Your task to perform on an android device: find which apps use the phone's location Image 0: 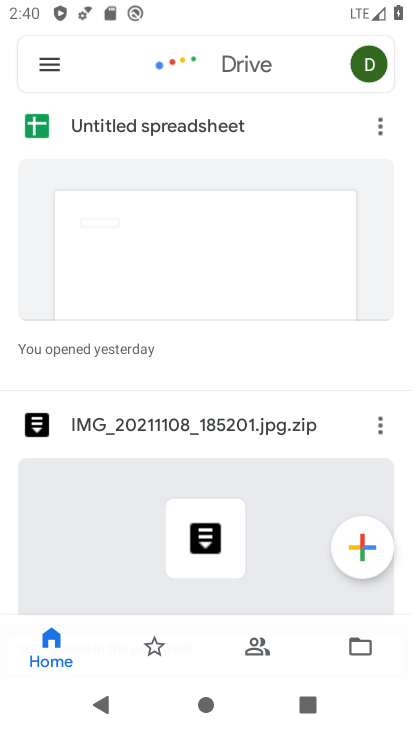
Step 0: press home button
Your task to perform on an android device: find which apps use the phone's location Image 1: 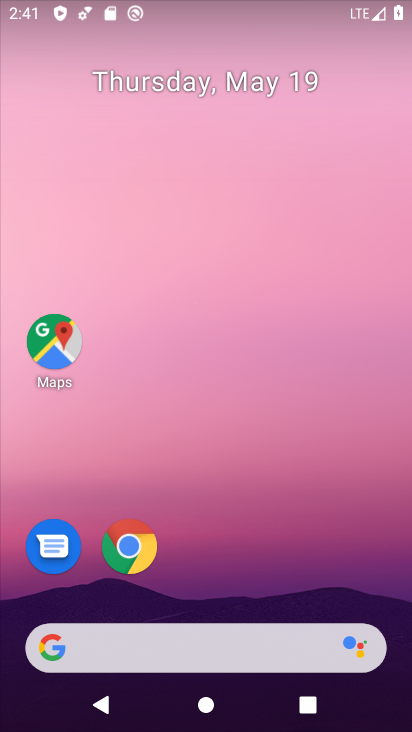
Step 1: drag from (210, 647) to (332, 135)
Your task to perform on an android device: find which apps use the phone's location Image 2: 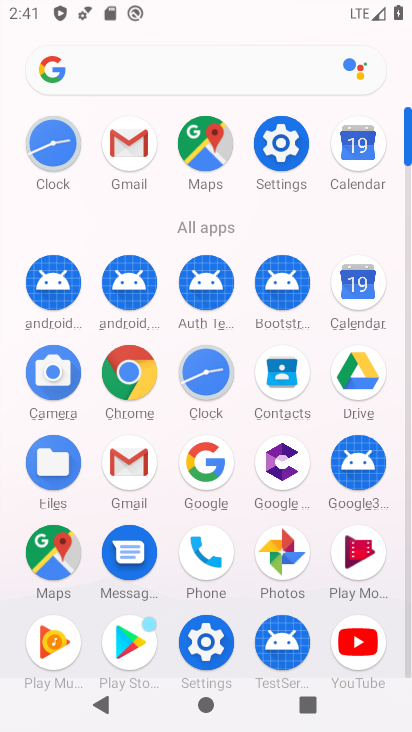
Step 2: click (284, 151)
Your task to perform on an android device: find which apps use the phone's location Image 3: 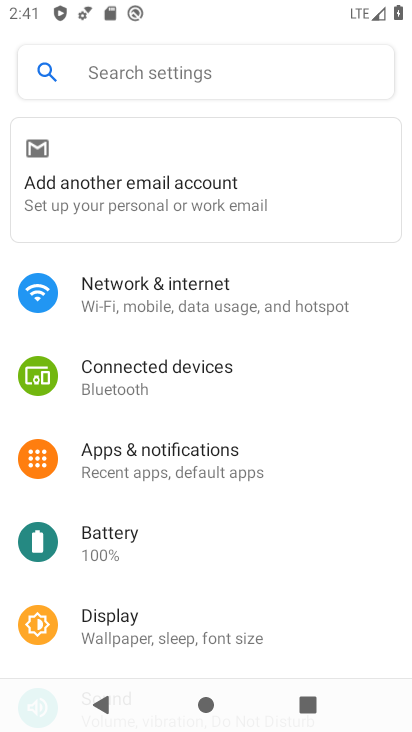
Step 3: drag from (186, 582) to (313, 84)
Your task to perform on an android device: find which apps use the phone's location Image 4: 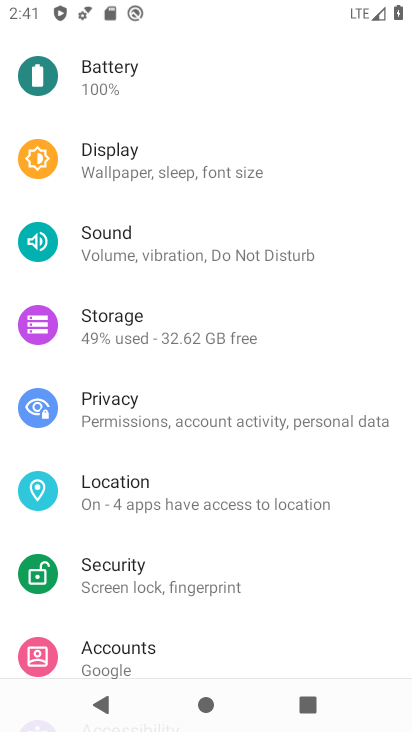
Step 4: drag from (204, 626) to (333, 81)
Your task to perform on an android device: find which apps use the phone's location Image 5: 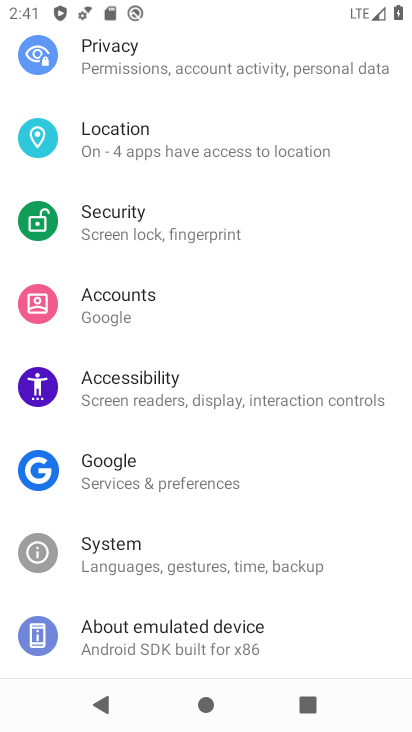
Step 5: click (202, 148)
Your task to perform on an android device: find which apps use the phone's location Image 6: 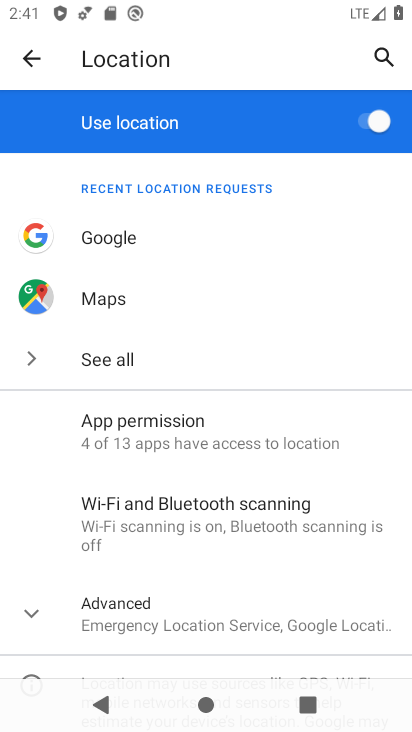
Step 6: click (112, 426)
Your task to perform on an android device: find which apps use the phone's location Image 7: 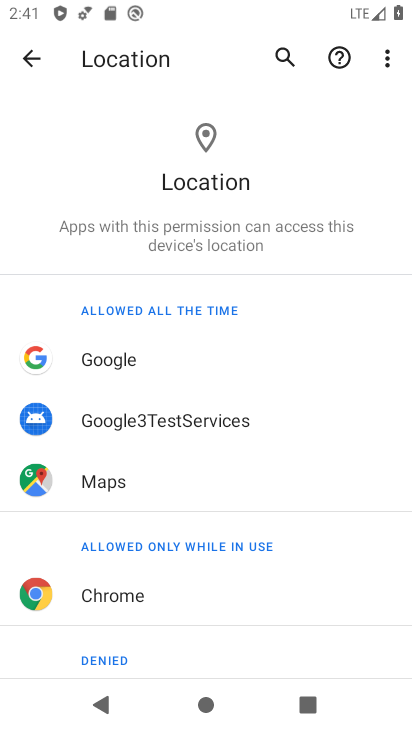
Step 7: drag from (156, 612) to (311, 220)
Your task to perform on an android device: find which apps use the phone's location Image 8: 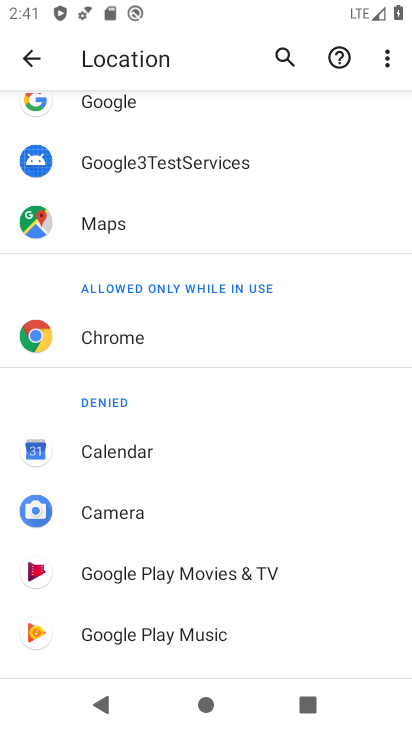
Step 8: drag from (179, 559) to (289, 205)
Your task to perform on an android device: find which apps use the phone's location Image 9: 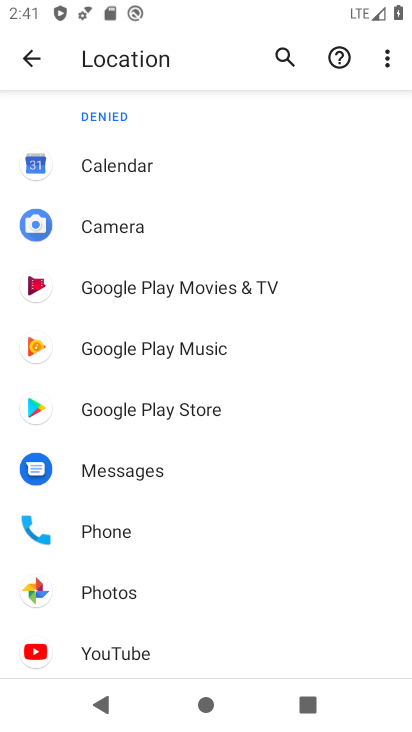
Step 9: click (134, 529)
Your task to perform on an android device: find which apps use the phone's location Image 10: 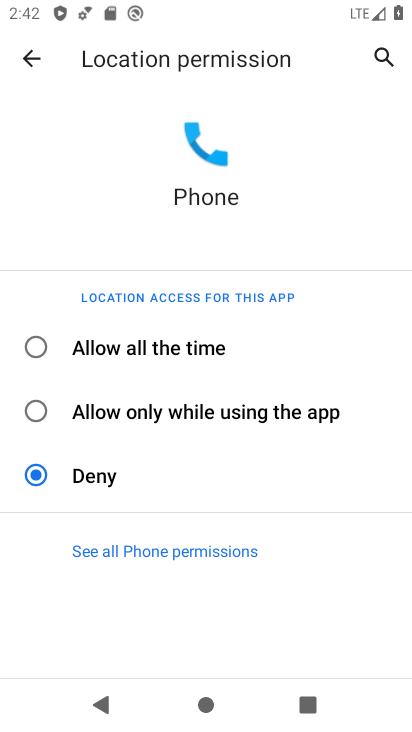
Step 10: task complete